Your task to perform on an android device: delete browsing data in the chrome app Image 0: 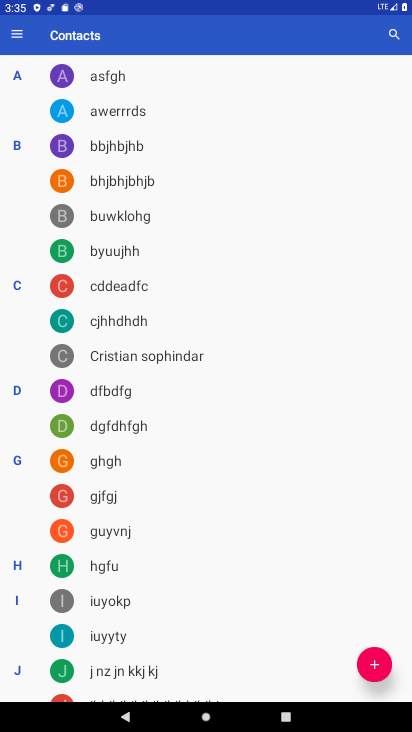
Step 0: press home button
Your task to perform on an android device: delete browsing data in the chrome app Image 1: 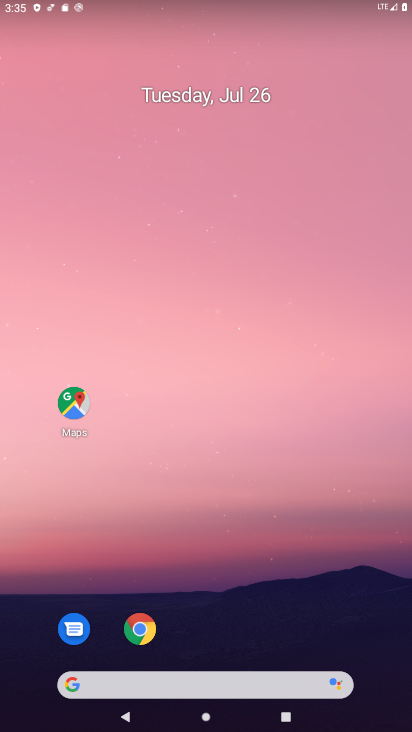
Step 1: click (136, 627)
Your task to perform on an android device: delete browsing data in the chrome app Image 2: 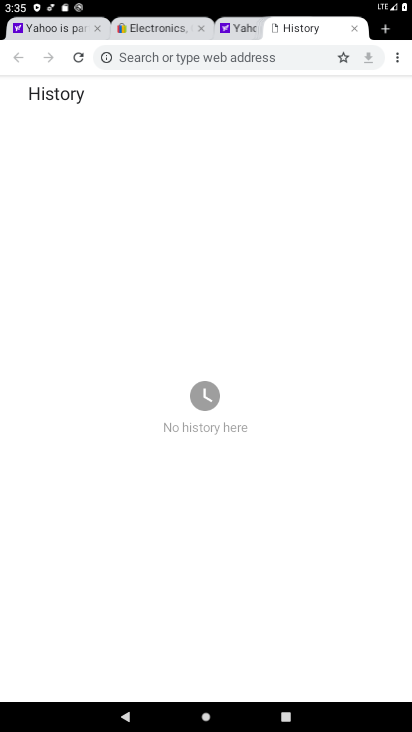
Step 2: task complete